Your task to perform on an android device: turn on airplane mode Image 0: 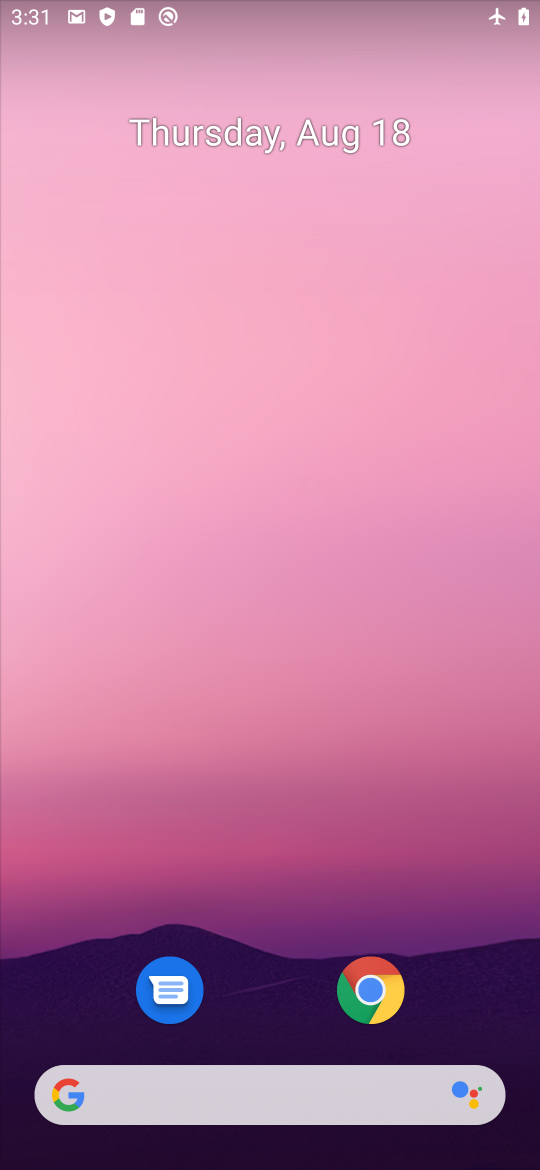
Step 0: drag from (230, 722) to (208, 38)
Your task to perform on an android device: turn on airplane mode Image 1: 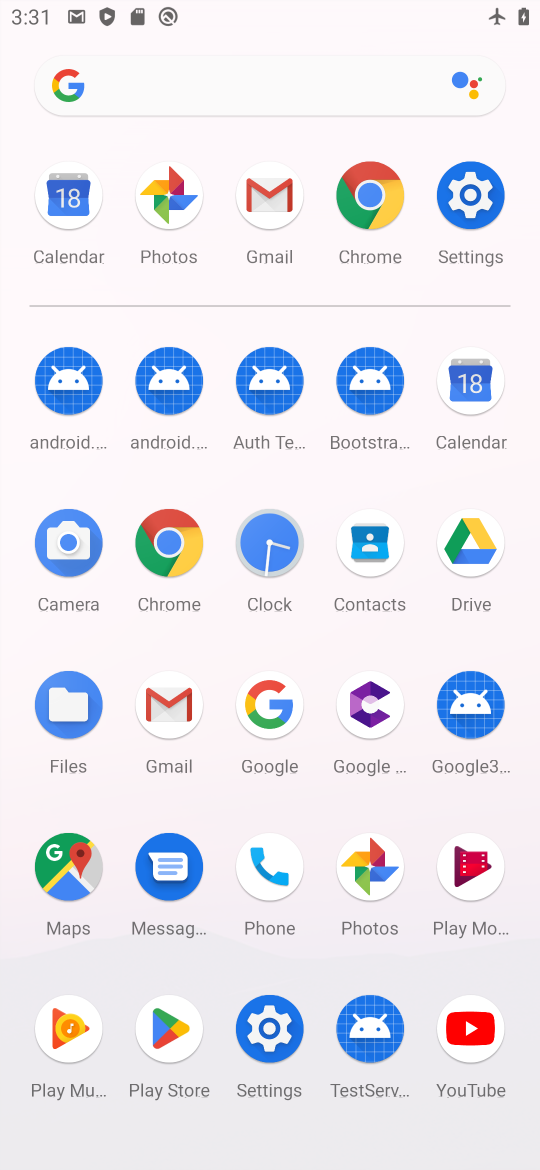
Step 1: click (261, 1030)
Your task to perform on an android device: turn on airplane mode Image 2: 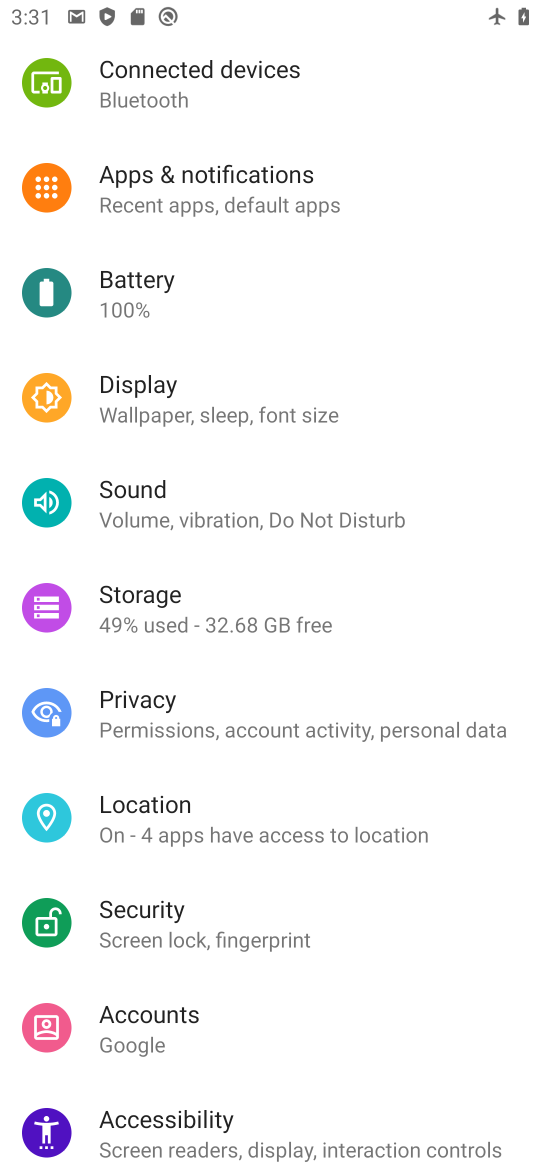
Step 2: drag from (306, 163) to (207, 768)
Your task to perform on an android device: turn on airplane mode Image 3: 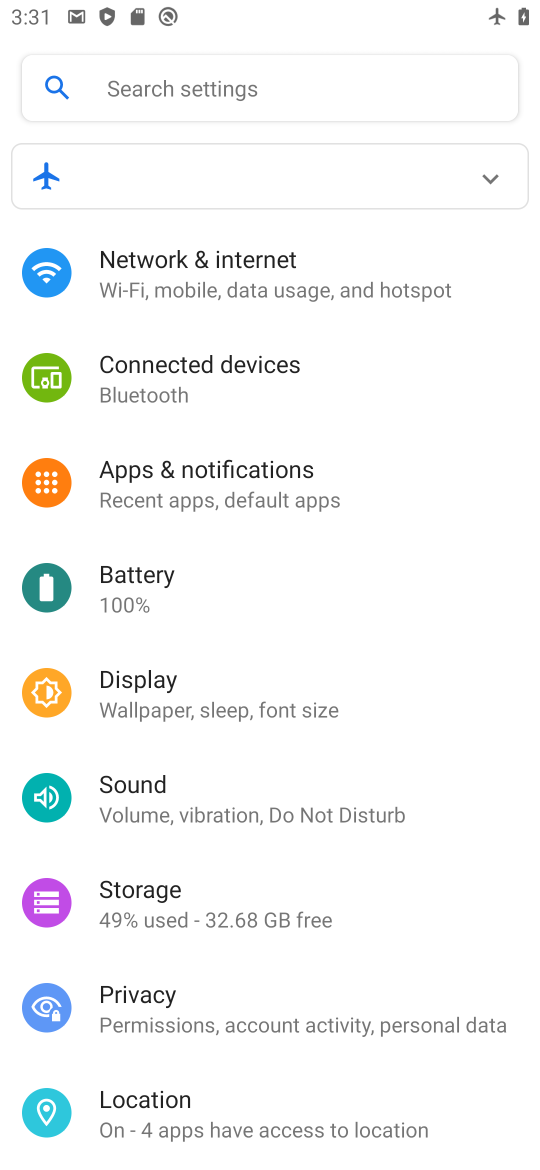
Step 3: click (246, 257)
Your task to perform on an android device: turn on airplane mode Image 4: 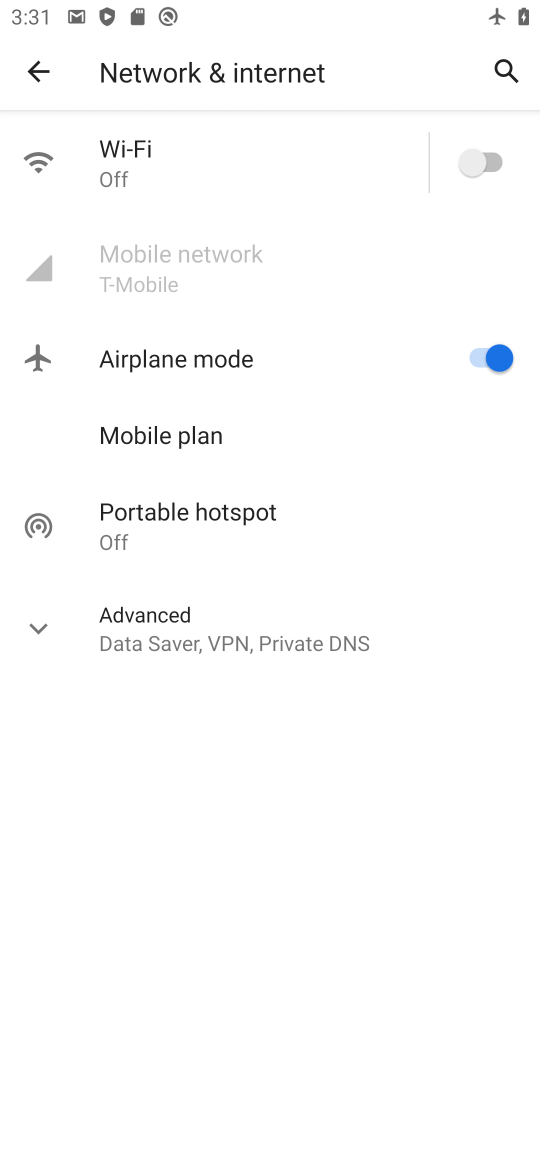
Step 4: task complete